Your task to perform on an android device: toggle wifi Image 0: 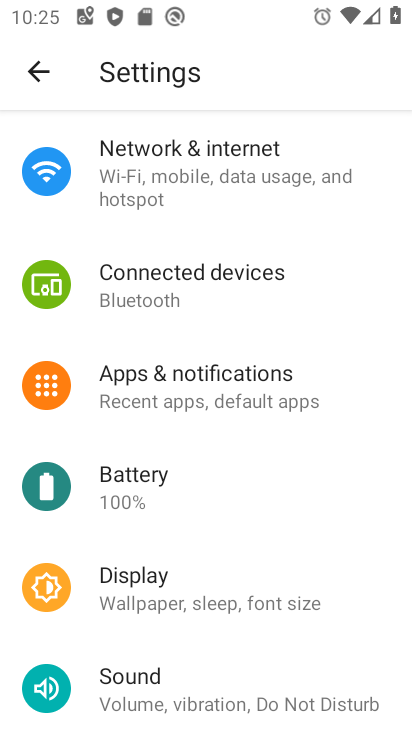
Step 0: click (218, 187)
Your task to perform on an android device: toggle wifi Image 1: 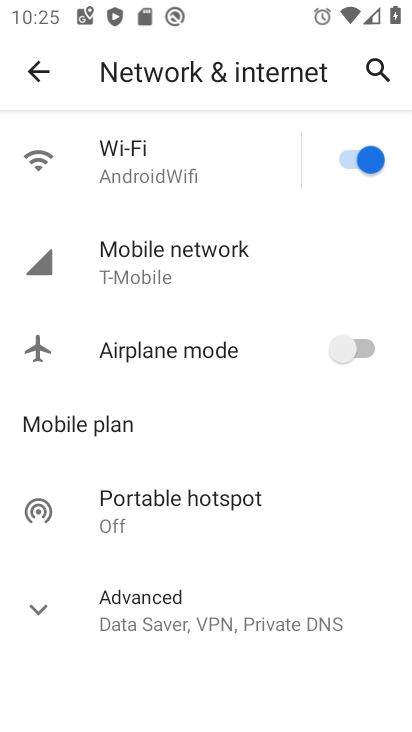
Step 1: click (349, 164)
Your task to perform on an android device: toggle wifi Image 2: 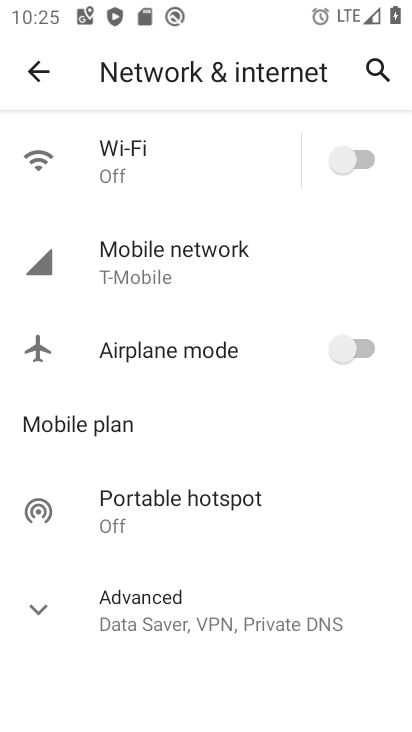
Step 2: task complete